Your task to perform on an android device: turn on showing notifications on the lock screen Image 0: 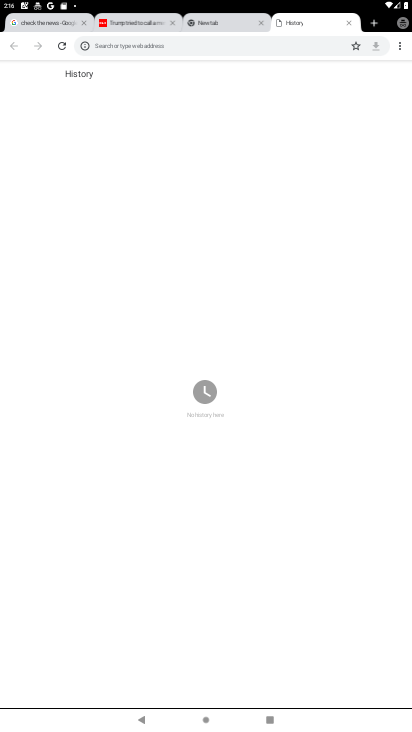
Step 0: press home button
Your task to perform on an android device: turn on showing notifications on the lock screen Image 1: 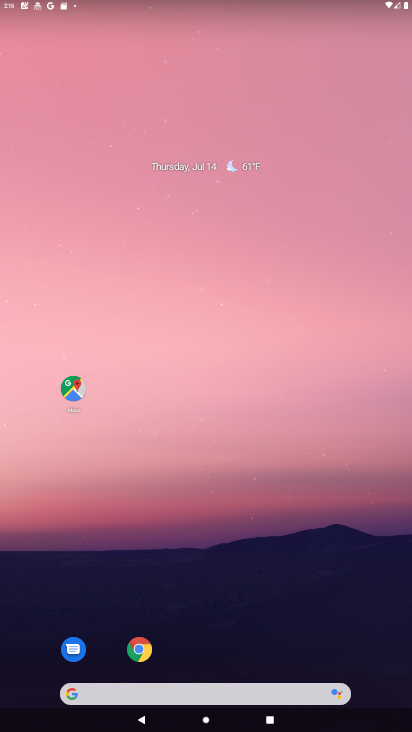
Step 1: drag from (299, 670) to (291, 47)
Your task to perform on an android device: turn on showing notifications on the lock screen Image 2: 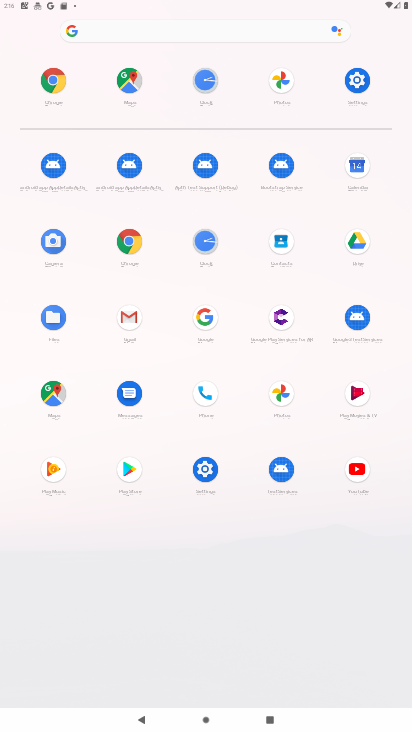
Step 2: click (355, 90)
Your task to perform on an android device: turn on showing notifications on the lock screen Image 3: 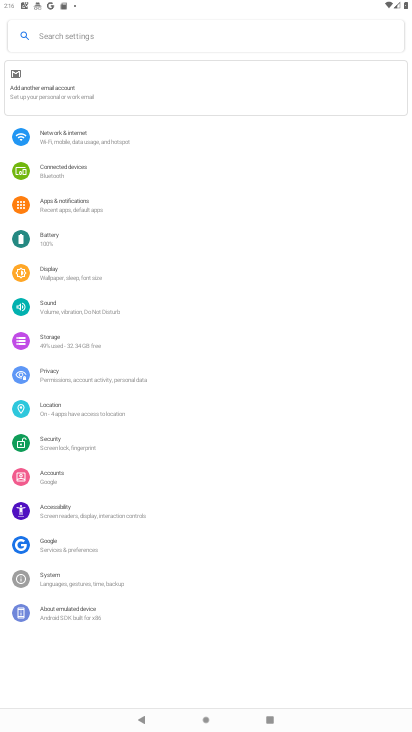
Step 3: click (101, 203)
Your task to perform on an android device: turn on showing notifications on the lock screen Image 4: 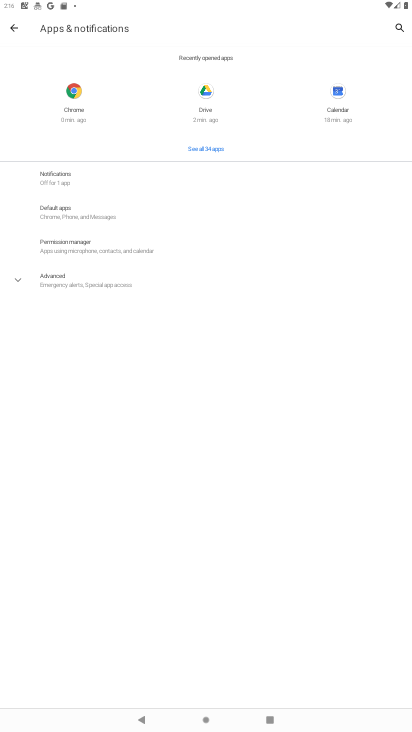
Step 4: click (91, 175)
Your task to perform on an android device: turn on showing notifications on the lock screen Image 5: 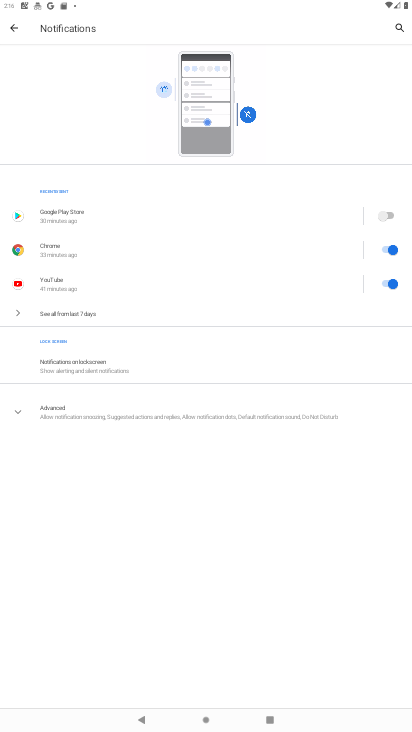
Step 5: click (78, 364)
Your task to perform on an android device: turn on showing notifications on the lock screen Image 6: 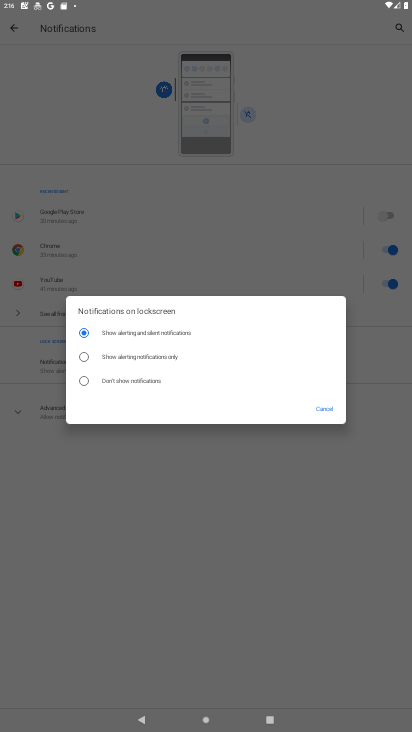
Step 6: click (165, 326)
Your task to perform on an android device: turn on showing notifications on the lock screen Image 7: 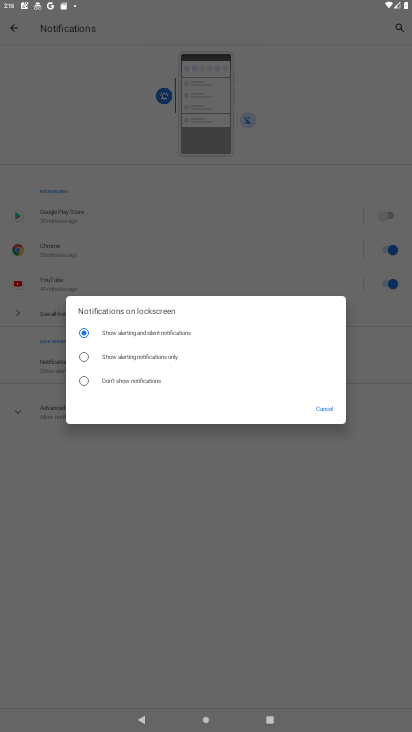
Step 7: task complete